Your task to perform on an android device: turn pop-ups on in chrome Image 0: 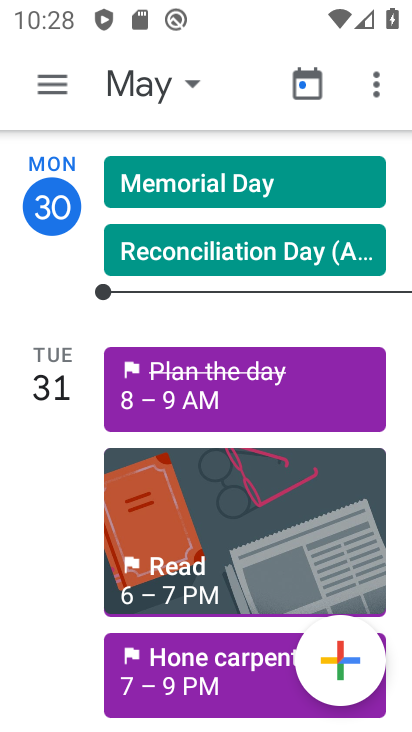
Step 0: press home button
Your task to perform on an android device: turn pop-ups on in chrome Image 1: 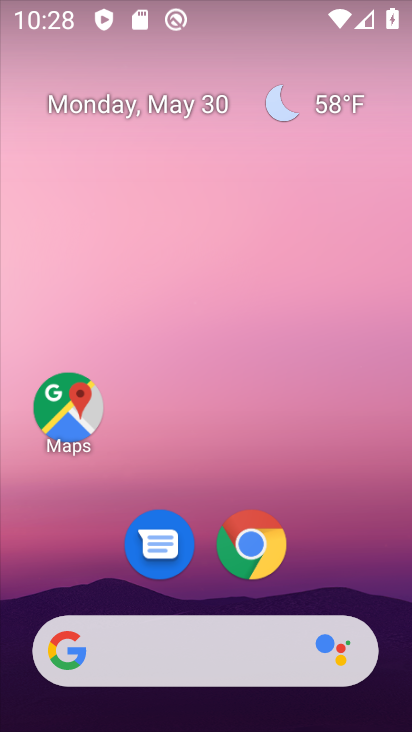
Step 1: click (242, 548)
Your task to perform on an android device: turn pop-ups on in chrome Image 2: 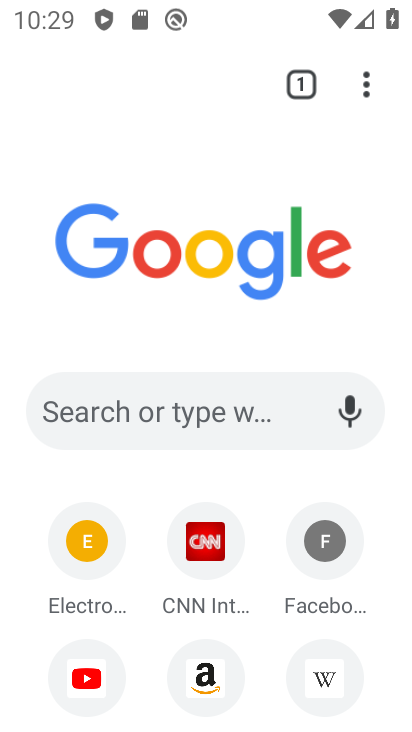
Step 2: click (376, 105)
Your task to perform on an android device: turn pop-ups on in chrome Image 3: 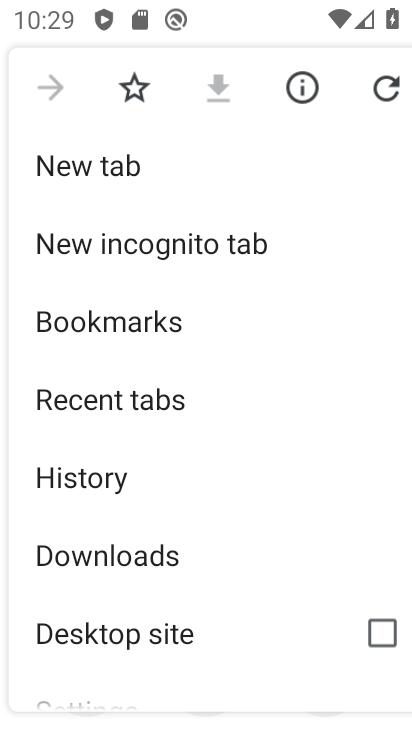
Step 3: drag from (225, 578) to (258, 147)
Your task to perform on an android device: turn pop-ups on in chrome Image 4: 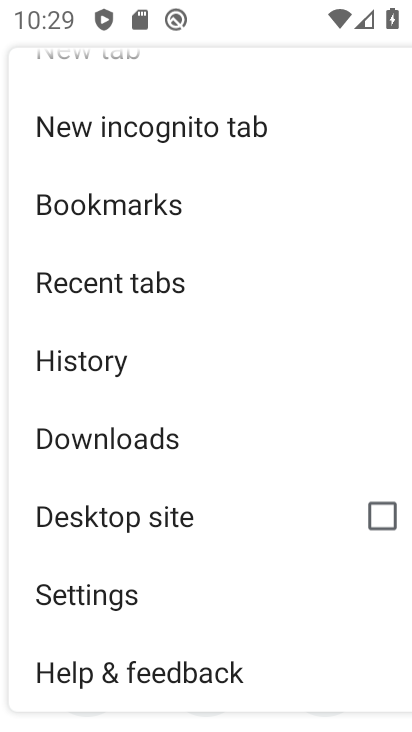
Step 4: click (154, 605)
Your task to perform on an android device: turn pop-ups on in chrome Image 5: 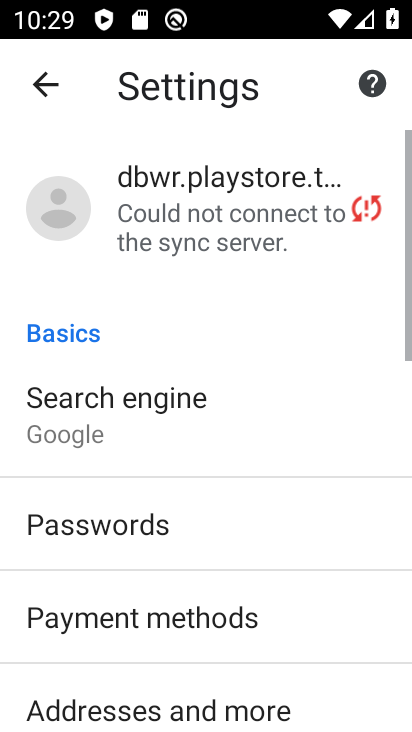
Step 5: task complete